Your task to perform on an android device: Open sound settings Image 0: 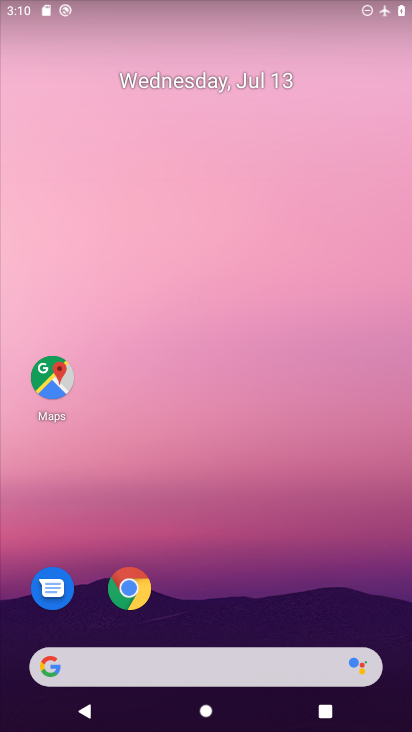
Step 0: drag from (188, 624) to (239, 21)
Your task to perform on an android device: Open sound settings Image 1: 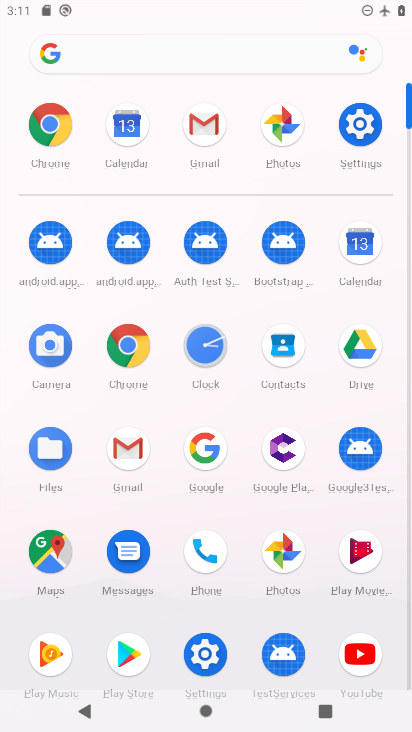
Step 1: click (369, 141)
Your task to perform on an android device: Open sound settings Image 2: 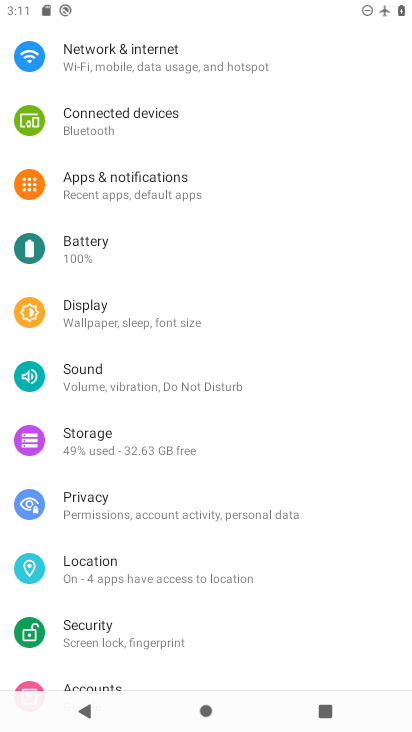
Step 2: click (113, 380)
Your task to perform on an android device: Open sound settings Image 3: 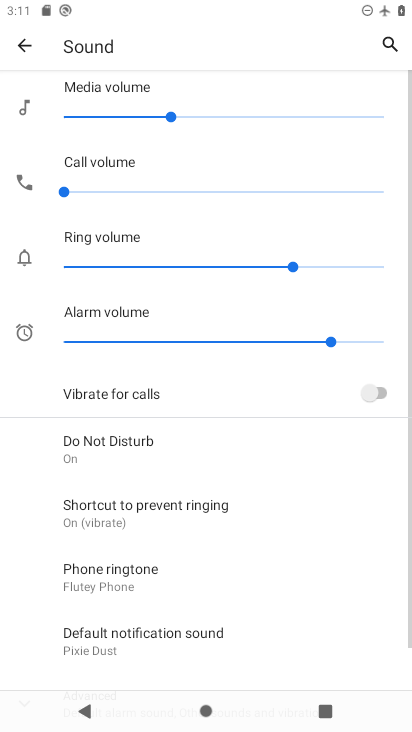
Step 3: task complete